Your task to perform on an android device: Go to Android settings Image 0: 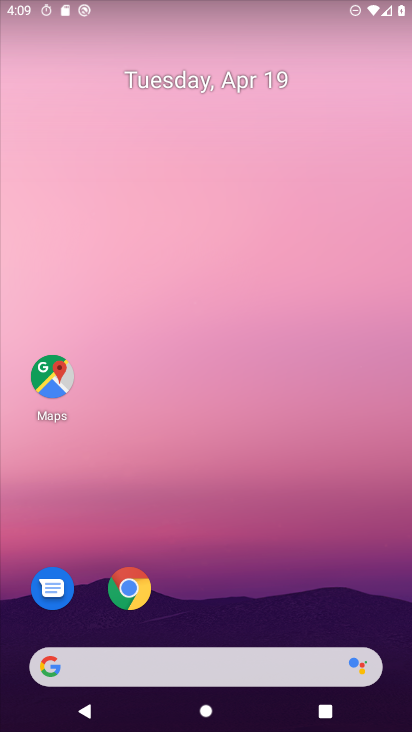
Step 0: drag from (226, 546) to (264, 53)
Your task to perform on an android device: Go to Android settings Image 1: 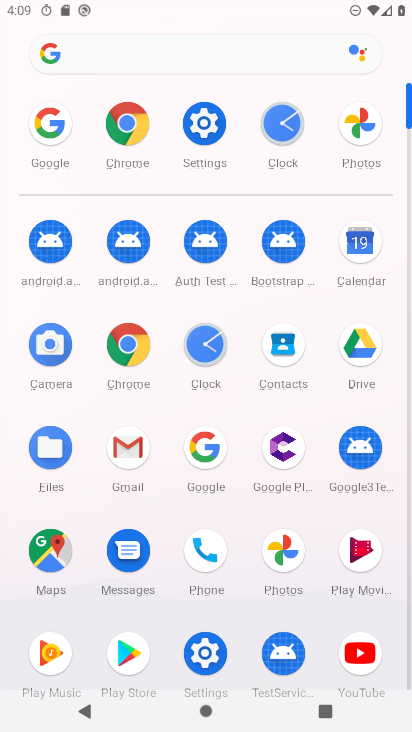
Step 1: click (204, 129)
Your task to perform on an android device: Go to Android settings Image 2: 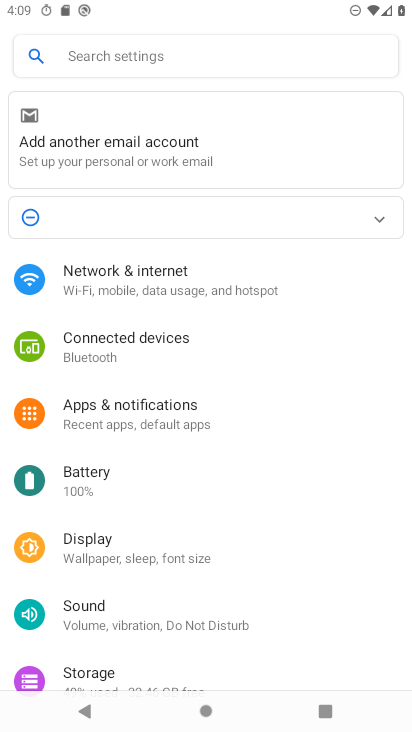
Step 2: drag from (224, 443) to (230, 147)
Your task to perform on an android device: Go to Android settings Image 3: 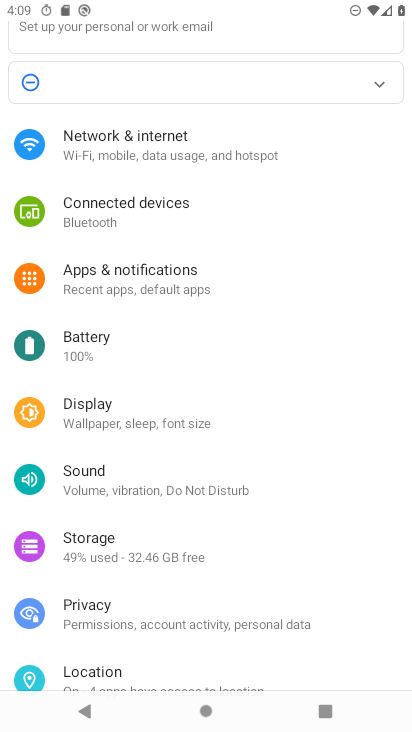
Step 3: drag from (197, 384) to (207, 137)
Your task to perform on an android device: Go to Android settings Image 4: 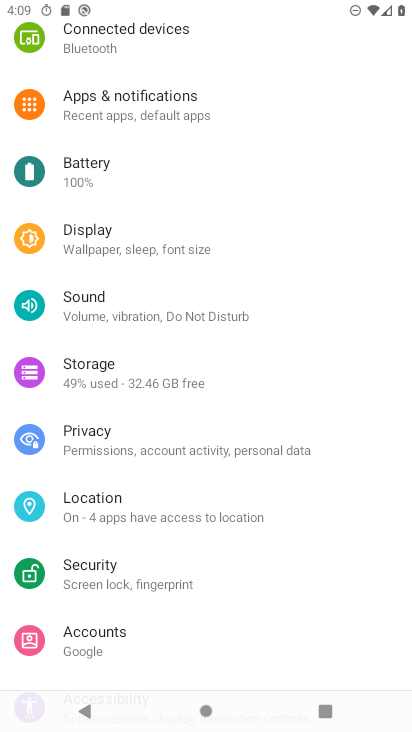
Step 4: drag from (198, 382) to (222, 190)
Your task to perform on an android device: Go to Android settings Image 5: 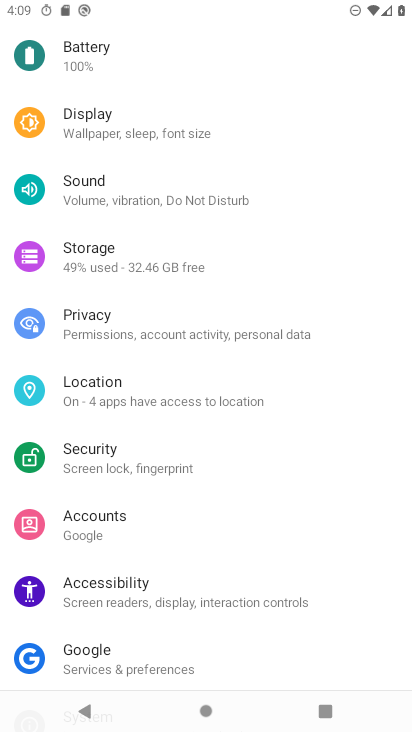
Step 5: drag from (205, 272) to (229, 148)
Your task to perform on an android device: Go to Android settings Image 6: 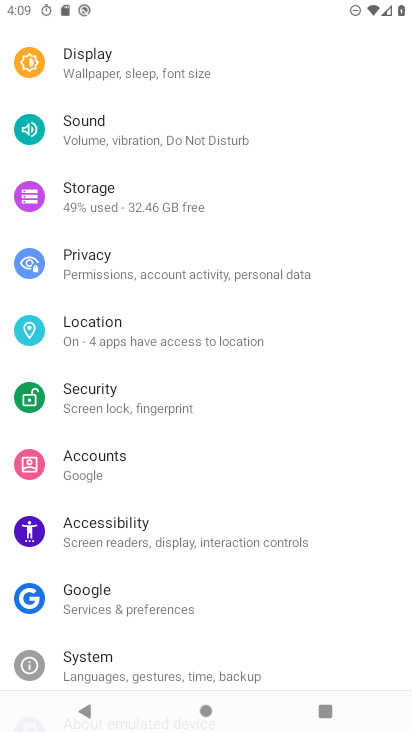
Step 6: drag from (214, 402) to (250, 180)
Your task to perform on an android device: Go to Android settings Image 7: 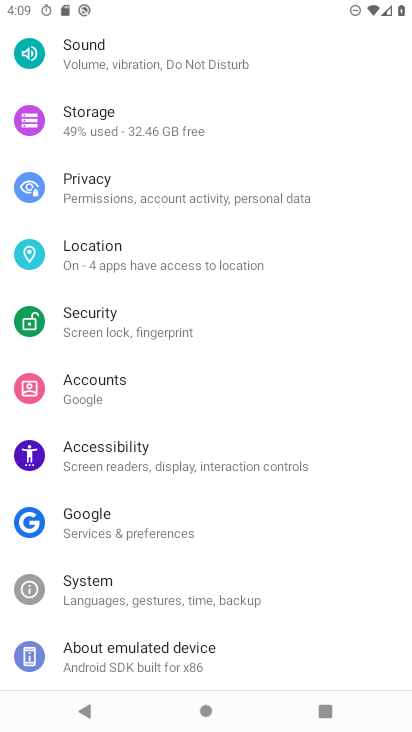
Step 7: click (203, 652)
Your task to perform on an android device: Go to Android settings Image 8: 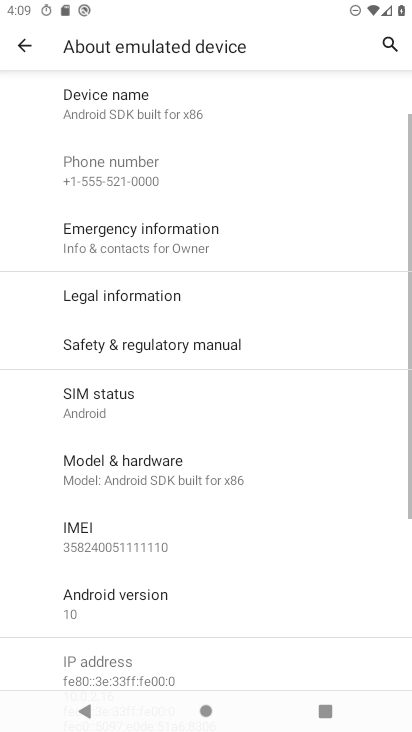
Step 8: click (147, 599)
Your task to perform on an android device: Go to Android settings Image 9: 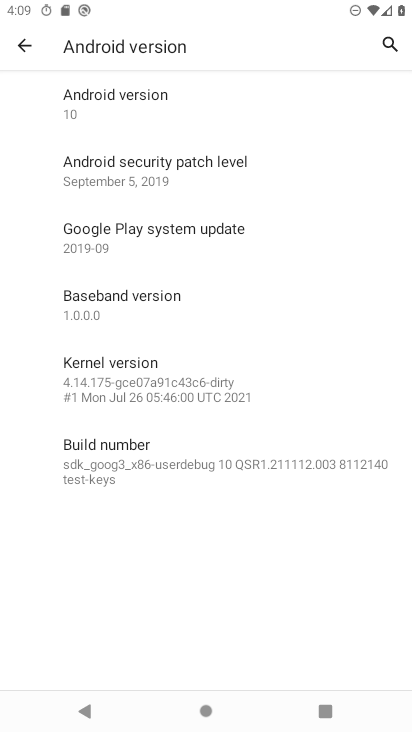
Step 9: click (193, 117)
Your task to perform on an android device: Go to Android settings Image 10: 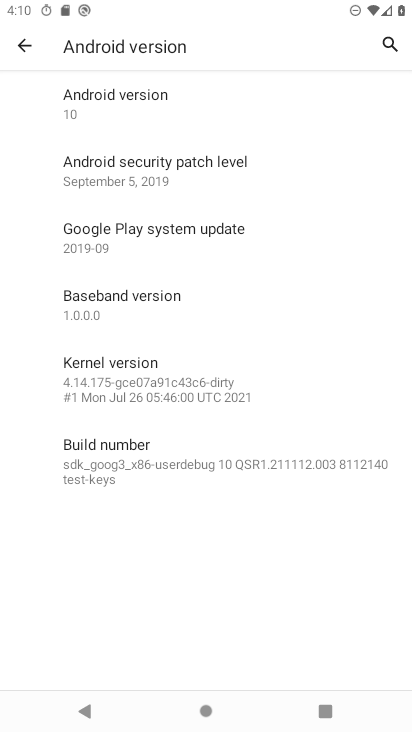
Step 10: task complete